Your task to perform on an android device: turn off translation in the chrome app Image 0: 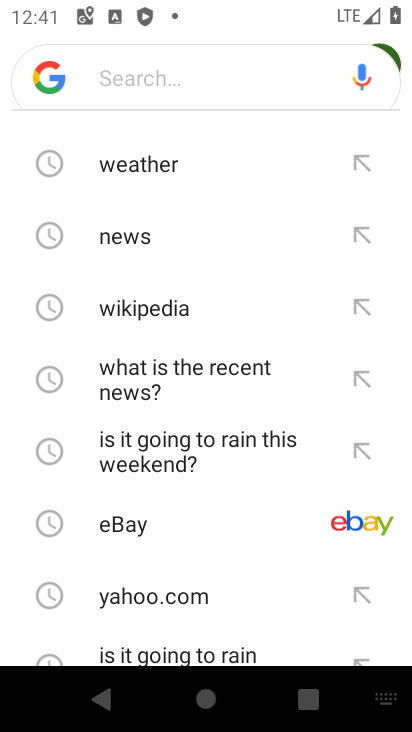
Step 0: press home button
Your task to perform on an android device: turn off translation in the chrome app Image 1: 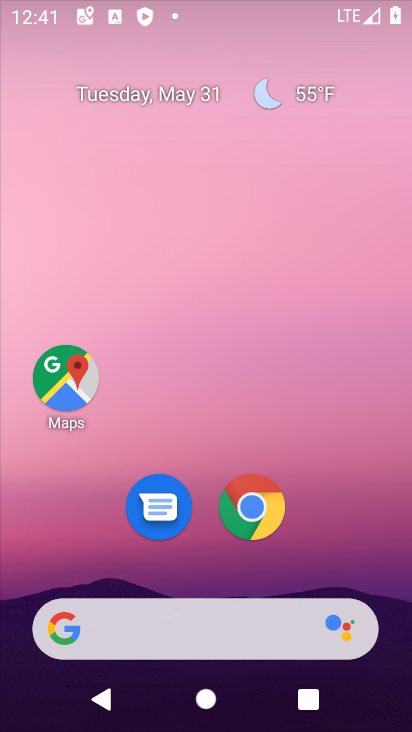
Step 1: drag from (375, 612) to (279, 16)
Your task to perform on an android device: turn off translation in the chrome app Image 2: 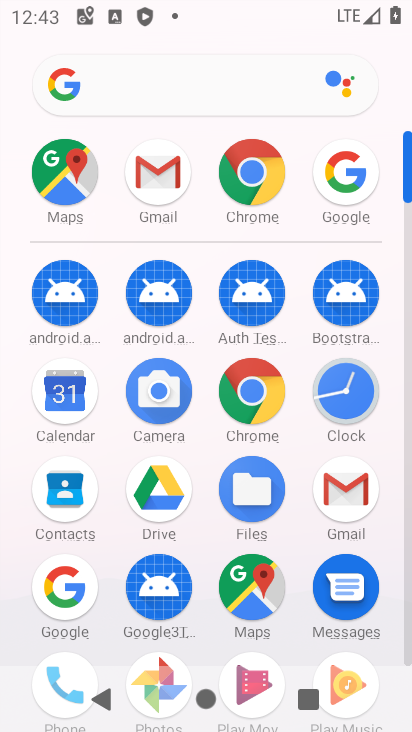
Step 2: click (250, 404)
Your task to perform on an android device: turn off translation in the chrome app Image 3: 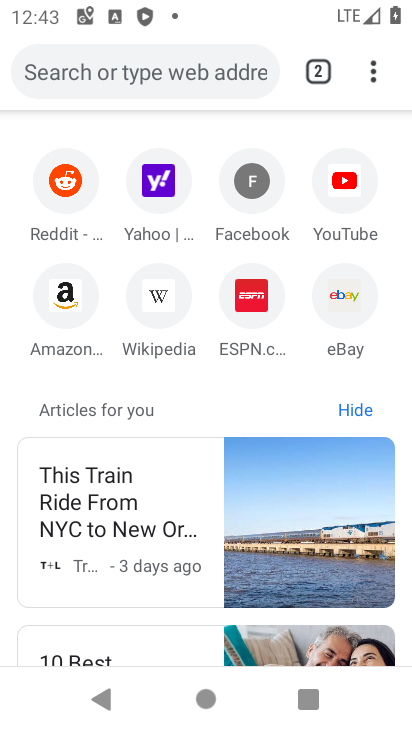
Step 3: click (368, 82)
Your task to perform on an android device: turn off translation in the chrome app Image 4: 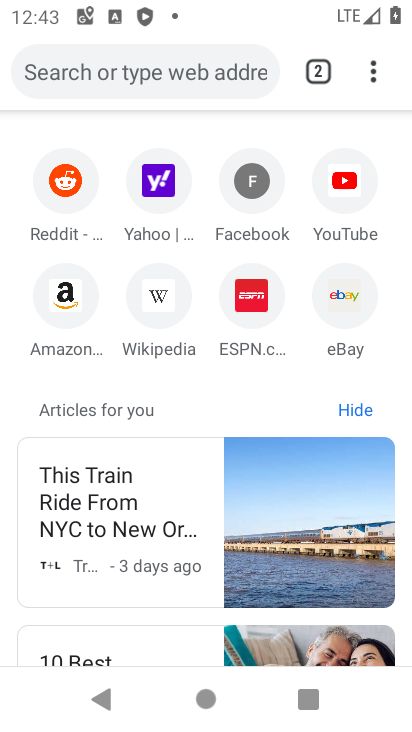
Step 4: click (374, 71)
Your task to perform on an android device: turn off translation in the chrome app Image 5: 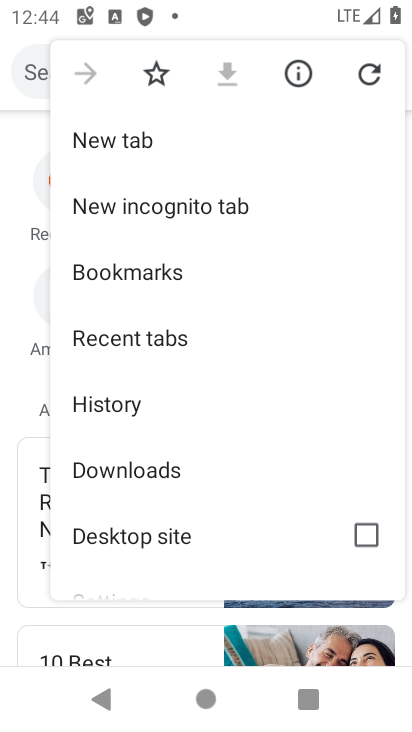
Step 5: drag from (161, 538) to (196, 143)
Your task to perform on an android device: turn off translation in the chrome app Image 6: 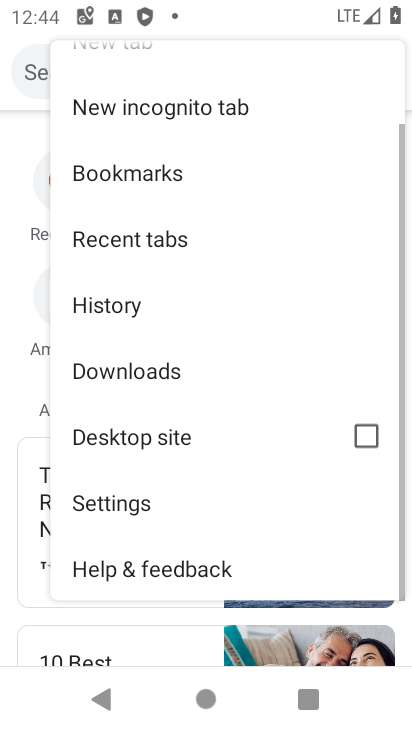
Step 6: click (141, 510)
Your task to perform on an android device: turn off translation in the chrome app Image 7: 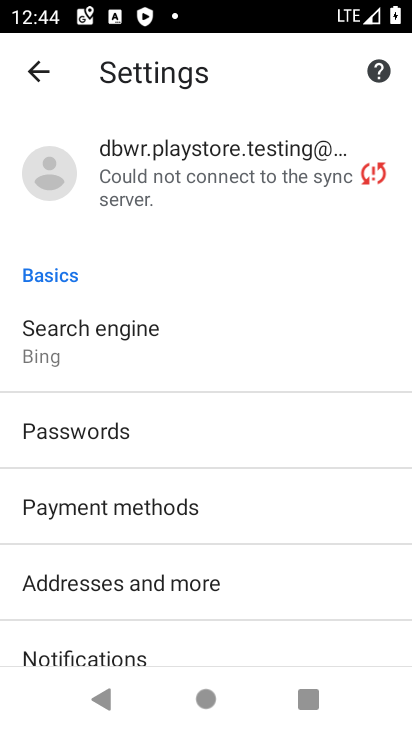
Step 7: drag from (135, 624) to (168, 240)
Your task to perform on an android device: turn off translation in the chrome app Image 8: 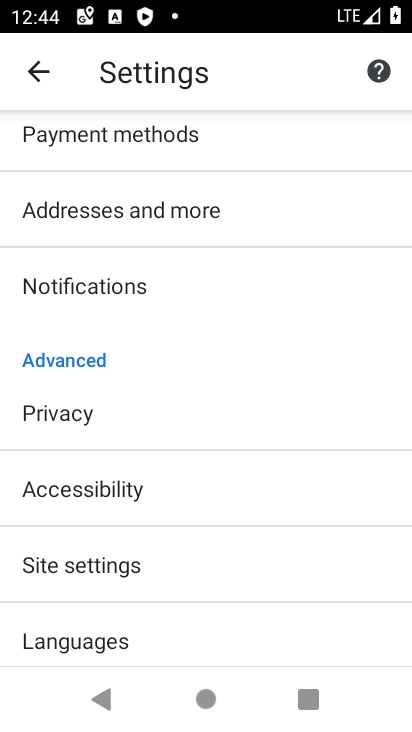
Step 8: click (100, 622)
Your task to perform on an android device: turn off translation in the chrome app Image 9: 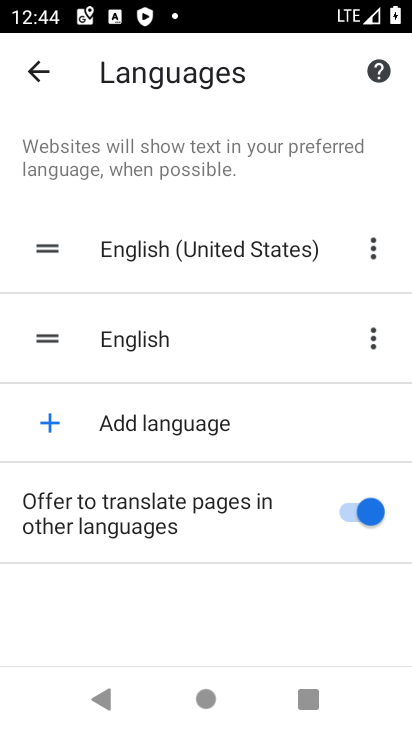
Step 9: click (365, 517)
Your task to perform on an android device: turn off translation in the chrome app Image 10: 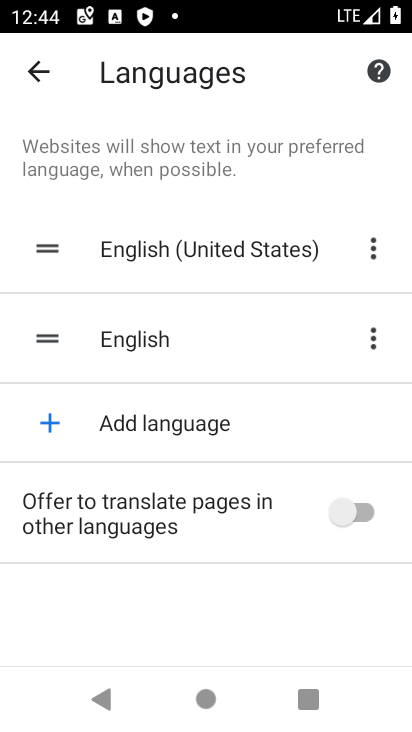
Step 10: task complete